Your task to perform on an android device: What is the news today? Image 0: 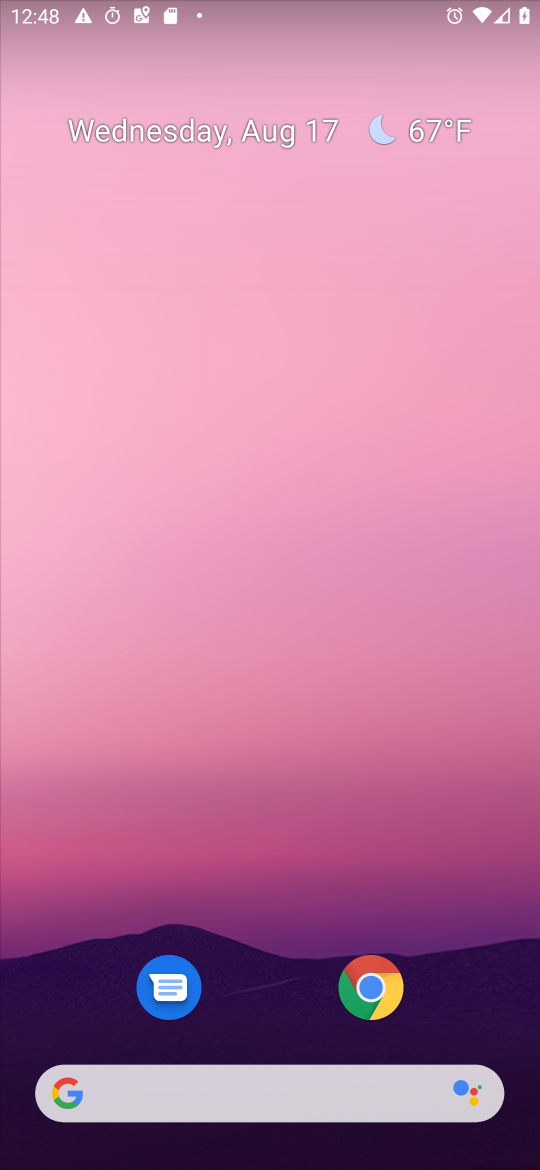
Step 0: click (172, 1088)
Your task to perform on an android device: What is the news today? Image 1: 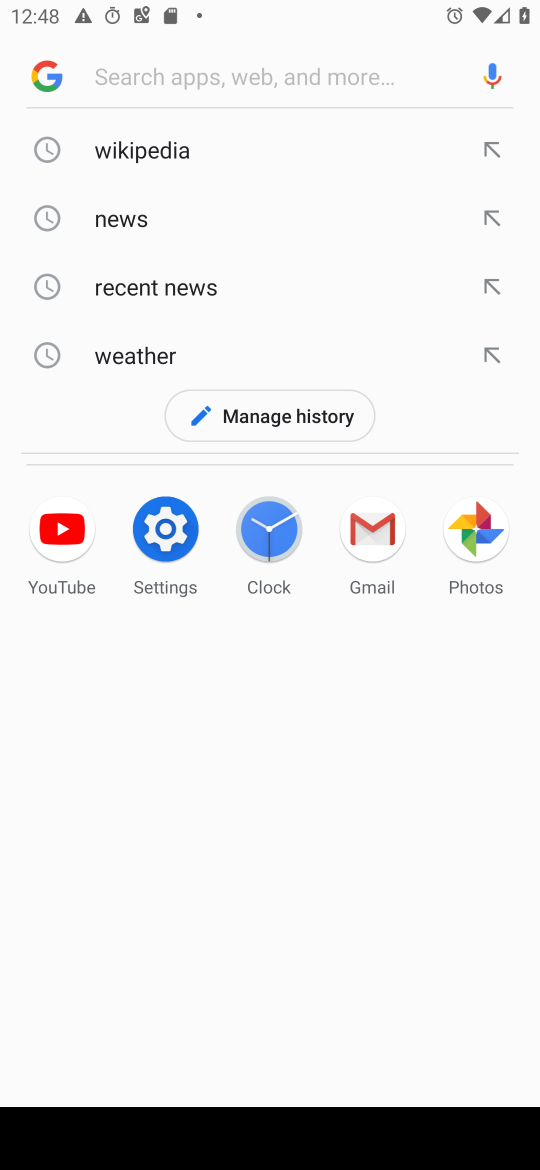
Step 1: type "What is the news today?"
Your task to perform on an android device: What is the news today? Image 2: 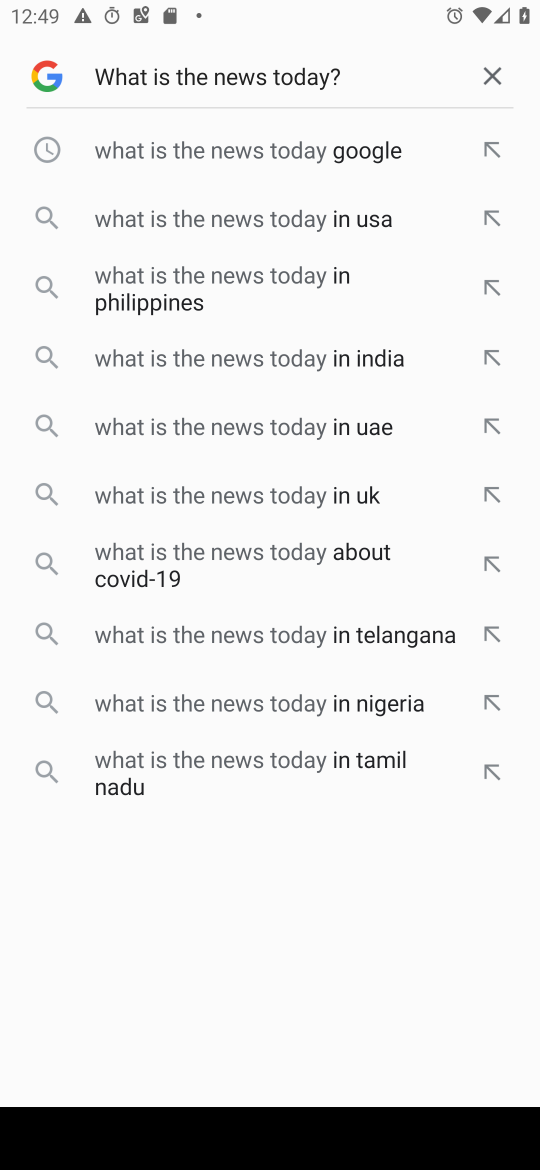
Step 2: type ""
Your task to perform on an android device: What is the news today? Image 3: 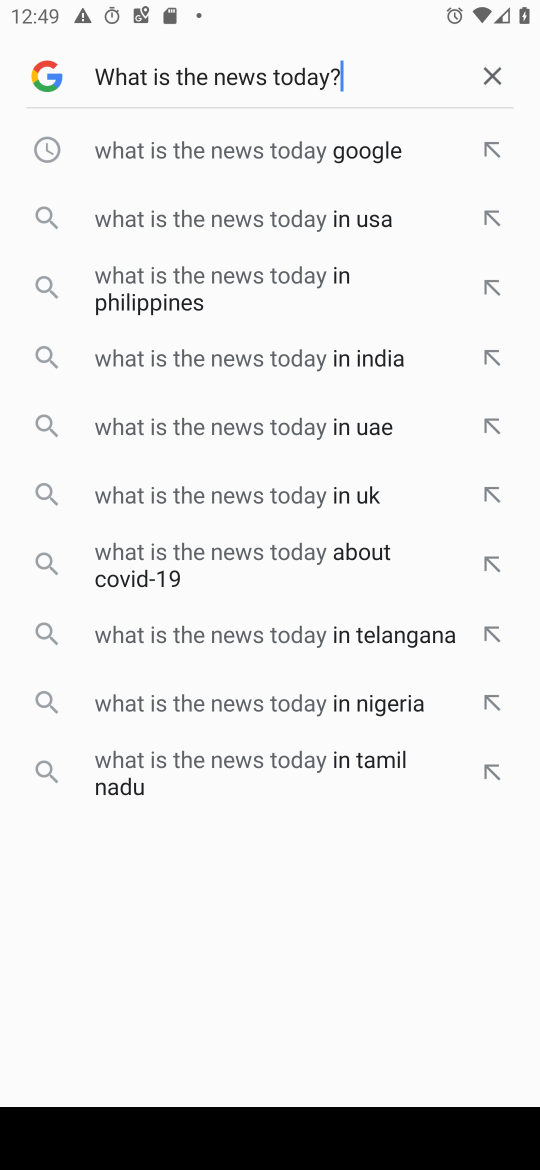
Step 3: type ""
Your task to perform on an android device: What is the news today? Image 4: 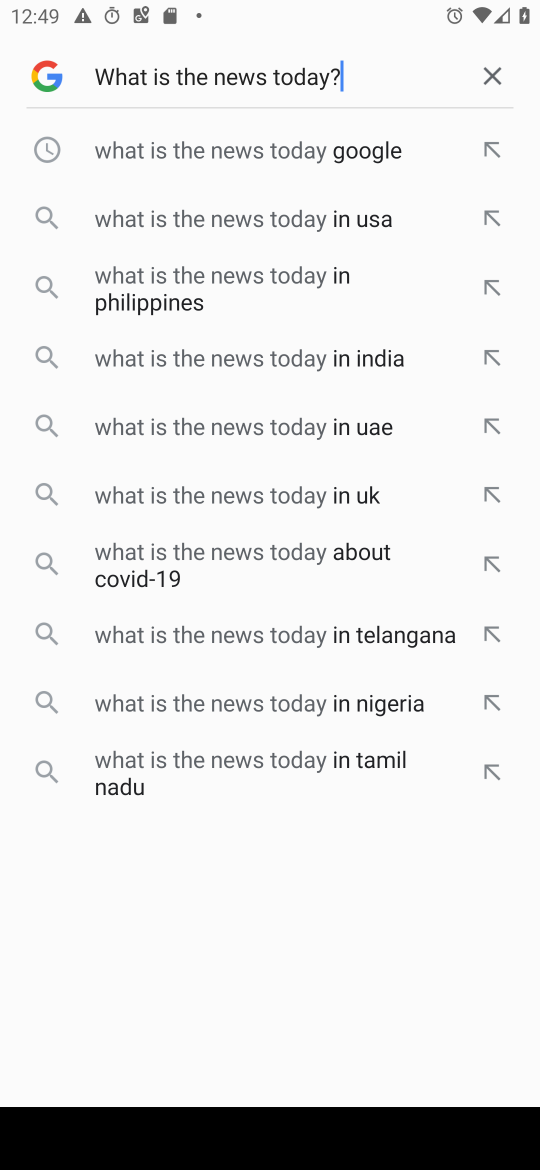
Step 4: type ""
Your task to perform on an android device: What is the news today? Image 5: 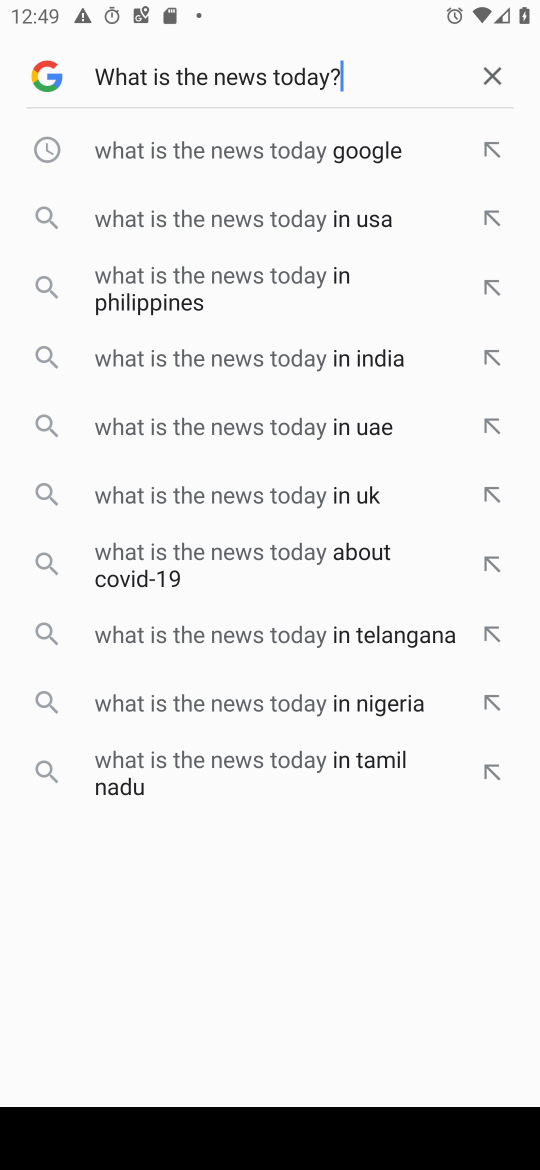
Step 5: type ""
Your task to perform on an android device: What is the news today? Image 6: 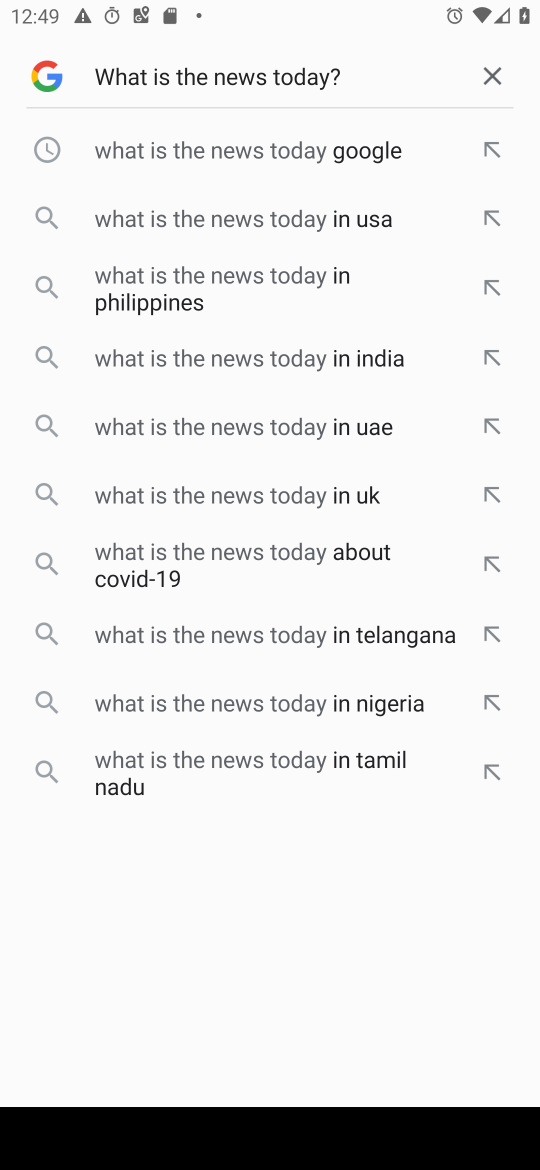
Step 6: task complete